Your task to perform on an android device: see creations saved in the google photos Image 0: 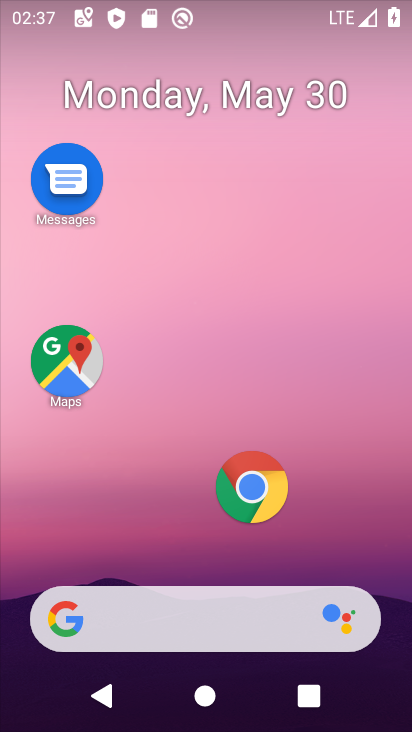
Step 0: drag from (188, 464) to (194, 150)
Your task to perform on an android device: see creations saved in the google photos Image 1: 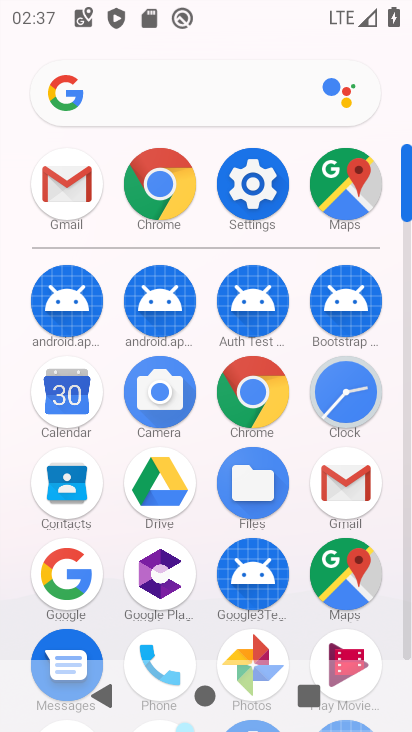
Step 1: click (242, 644)
Your task to perform on an android device: see creations saved in the google photos Image 2: 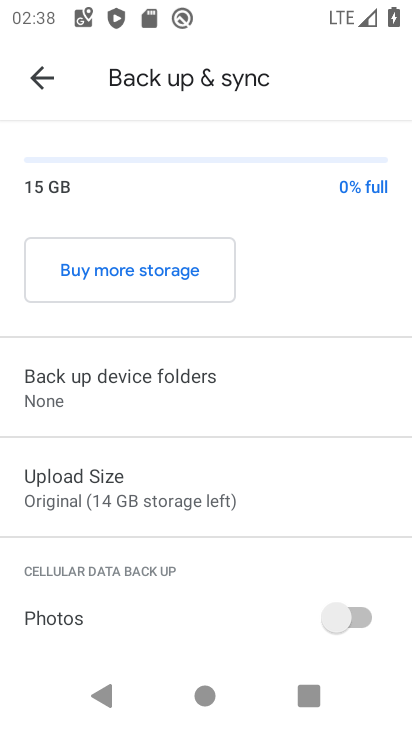
Step 2: click (34, 87)
Your task to perform on an android device: see creations saved in the google photos Image 3: 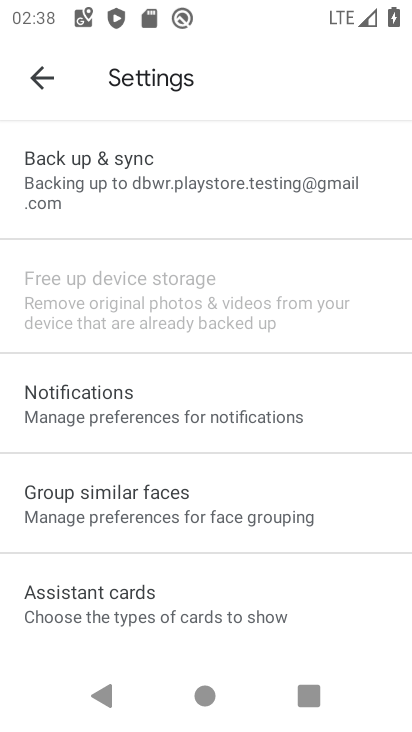
Step 3: click (43, 81)
Your task to perform on an android device: see creations saved in the google photos Image 4: 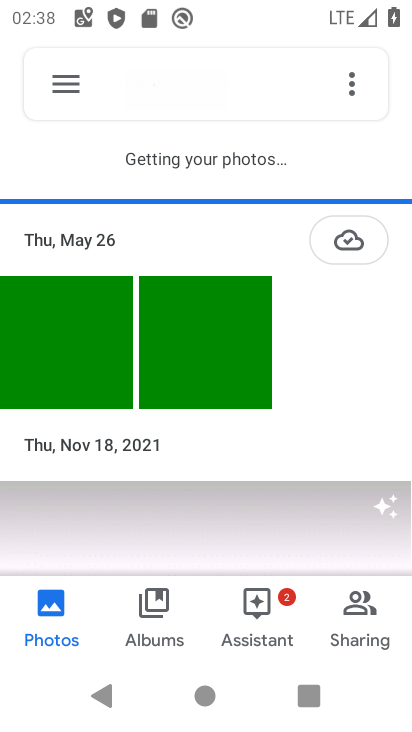
Step 4: click (227, 92)
Your task to perform on an android device: see creations saved in the google photos Image 5: 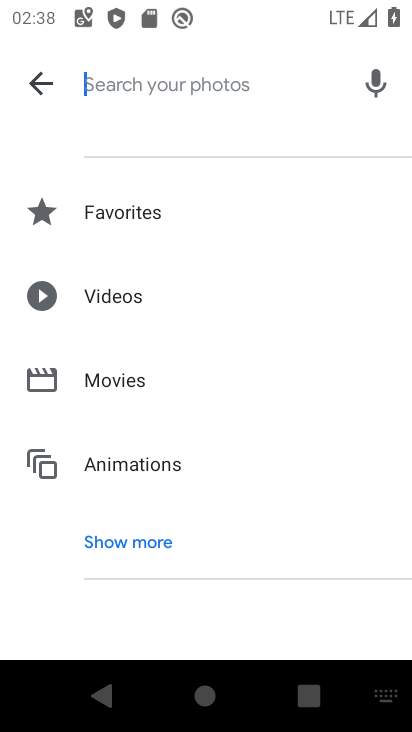
Step 5: click (146, 536)
Your task to perform on an android device: see creations saved in the google photos Image 6: 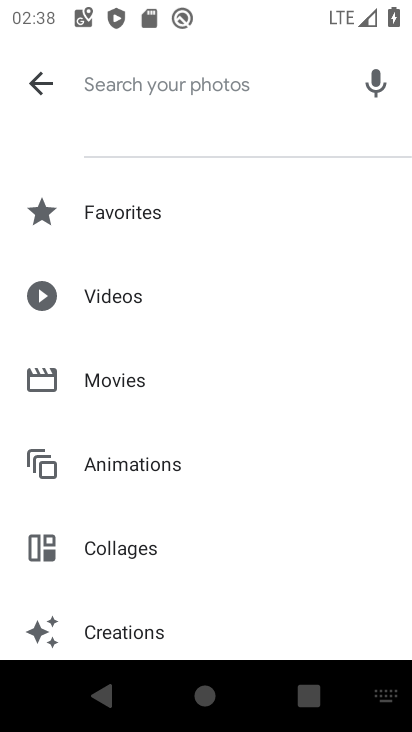
Step 6: click (101, 642)
Your task to perform on an android device: see creations saved in the google photos Image 7: 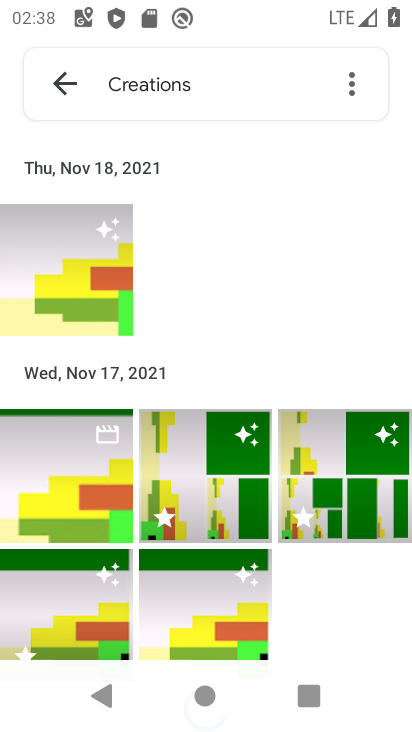
Step 7: task complete